Your task to perform on an android device: read, delete, or share a saved page in the chrome app Image 0: 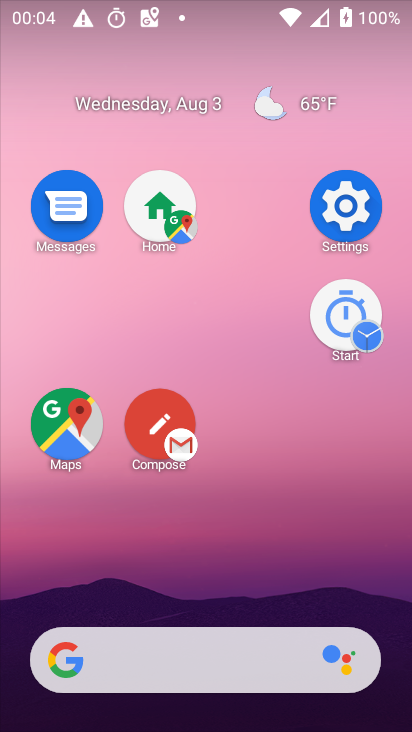
Step 0: click (109, 76)
Your task to perform on an android device: read, delete, or share a saved page in the chrome app Image 1: 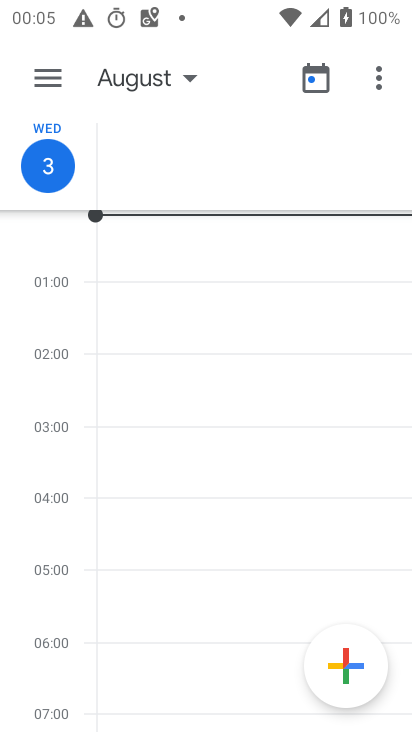
Step 1: press back button
Your task to perform on an android device: read, delete, or share a saved page in the chrome app Image 2: 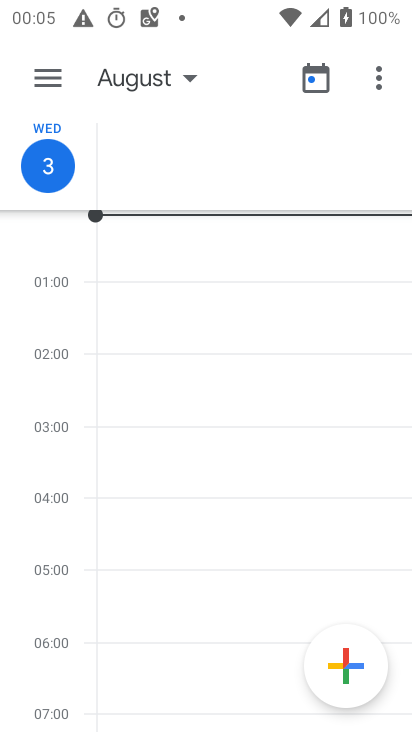
Step 2: press back button
Your task to perform on an android device: read, delete, or share a saved page in the chrome app Image 3: 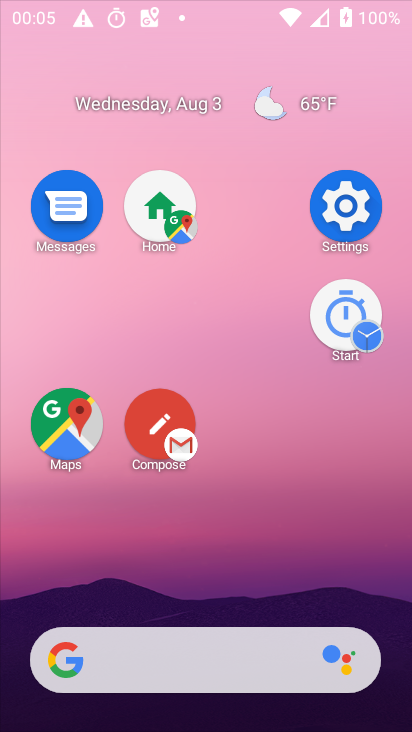
Step 3: press back button
Your task to perform on an android device: read, delete, or share a saved page in the chrome app Image 4: 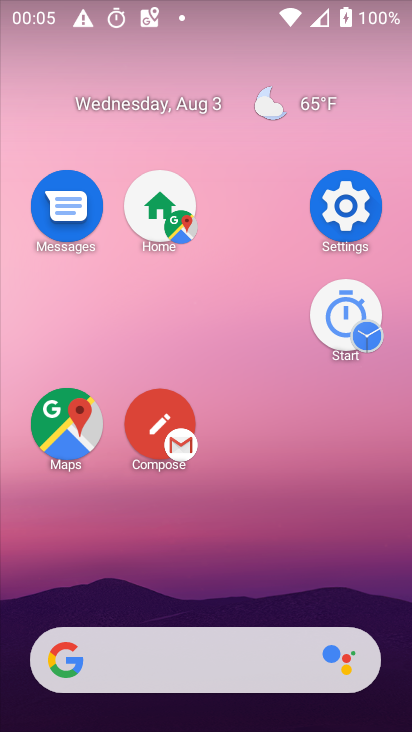
Step 4: press home button
Your task to perform on an android device: read, delete, or share a saved page in the chrome app Image 5: 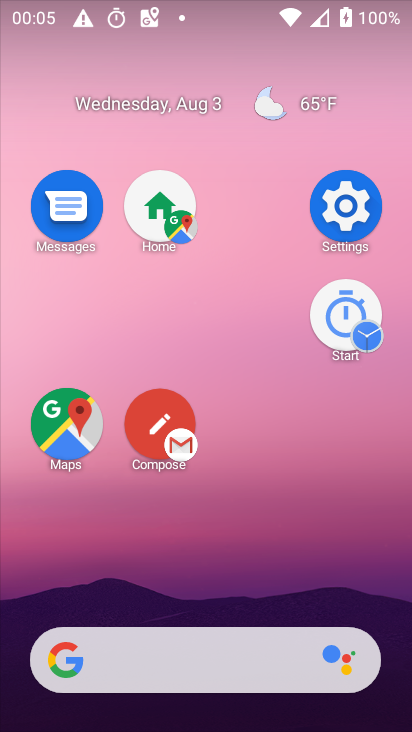
Step 5: press home button
Your task to perform on an android device: read, delete, or share a saved page in the chrome app Image 6: 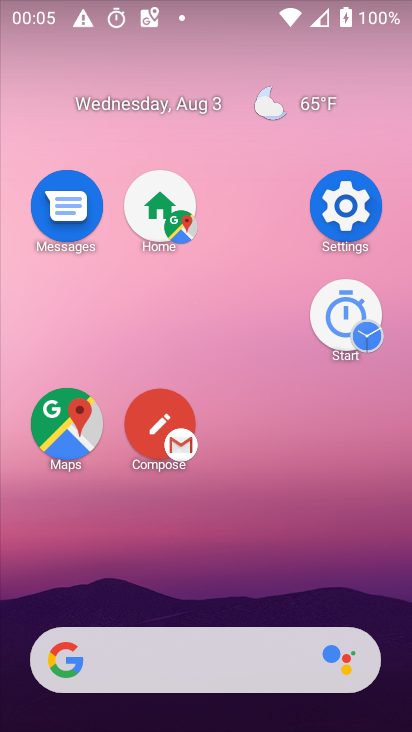
Step 6: drag from (245, 656) to (218, 129)
Your task to perform on an android device: read, delete, or share a saved page in the chrome app Image 7: 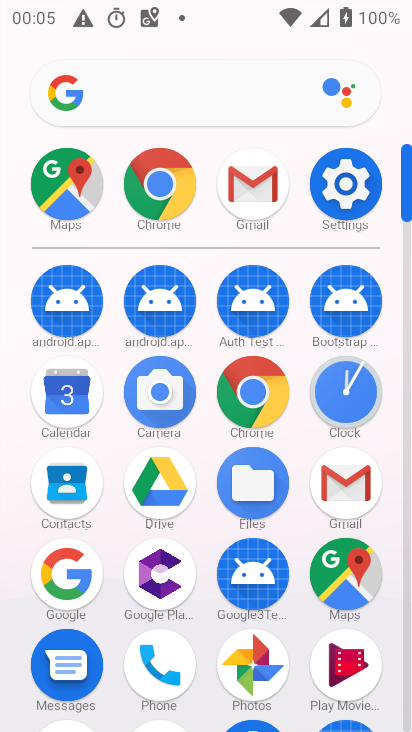
Step 7: drag from (253, 523) to (225, 181)
Your task to perform on an android device: read, delete, or share a saved page in the chrome app Image 8: 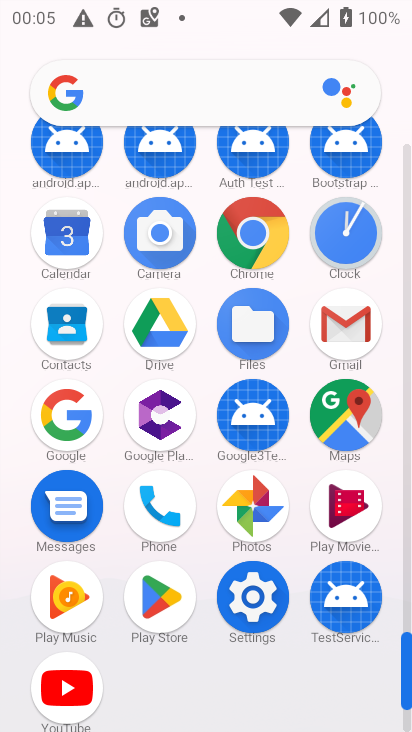
Step 8: click (247, 227)
Your task to perform on an android device: read, delete, or share a saved page in the chrome app Image 9: 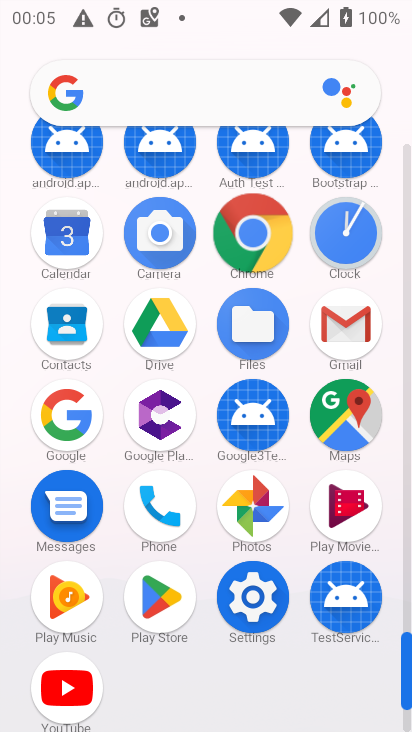
Step 9: click (251, 233)
Your task to perform on an android device: read, delete, or share a saved page in the chrome app Image 10: 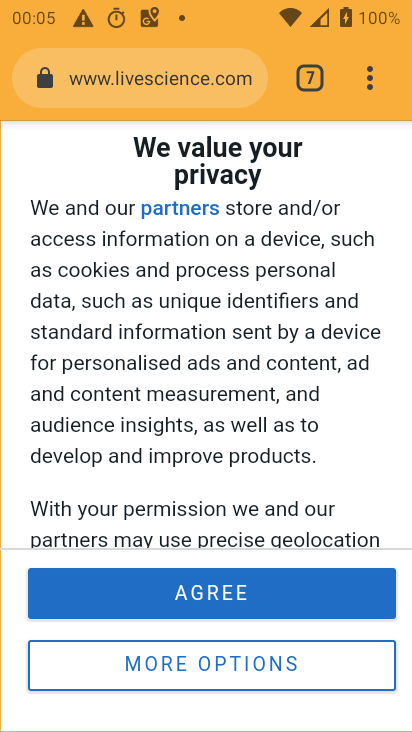
Step 10: drag from (364, 77) to (64, 498)
Your task to perform on an android device: read, delete, or share a saved page in the chrome app Image 11: 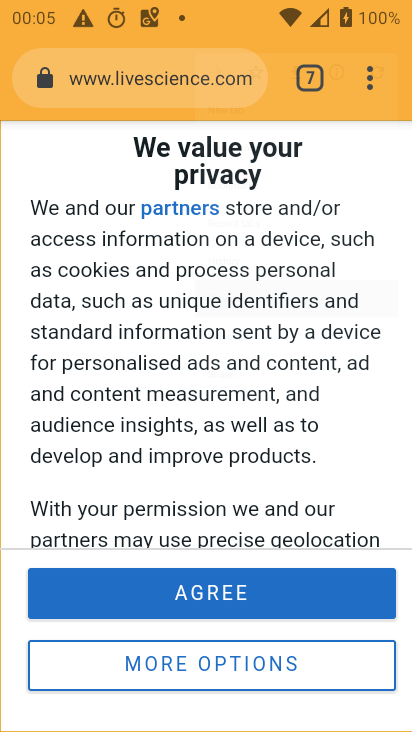
Step 11: click (72, 501)
Your task to perform on an android device: read, delete, or share a saved page in the chrome app Image 12: 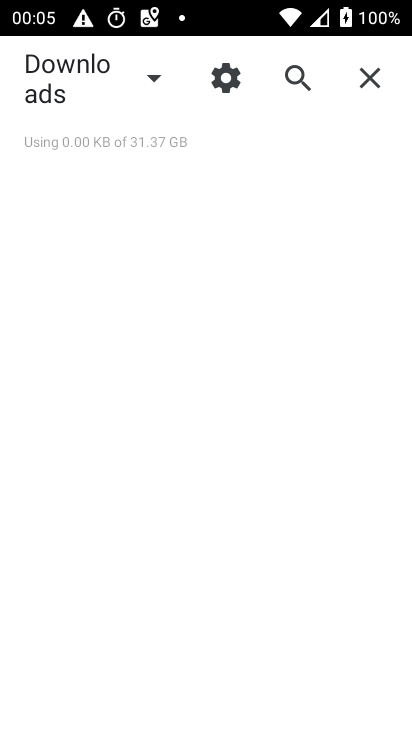
Step 12: click (151, 76)
Your task to perform on an android device: read, delete, or share a saved page in the chrome app Image 13: 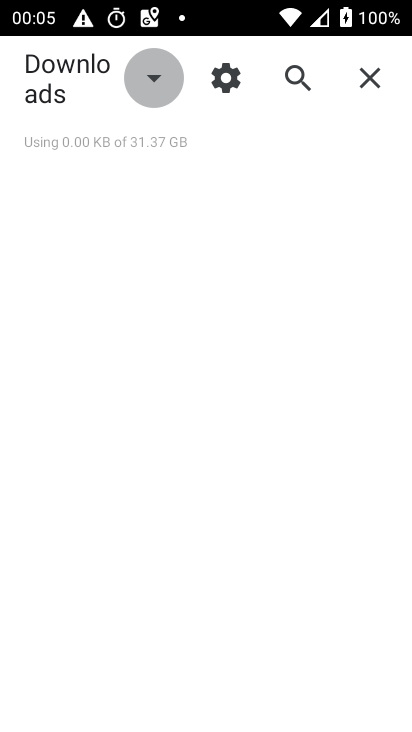
Step 13: click (151, 76)
Your task to perform on an android device: read, delete, or share a saved page in the chrome app Image 14: 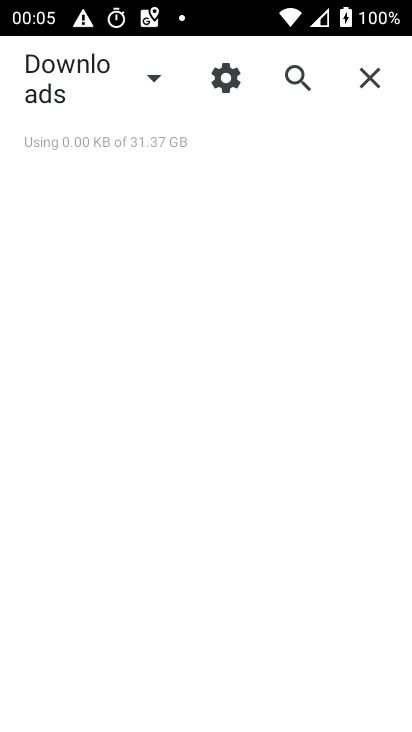
Step 14: click (154, 75)
Your task to perform on an android device: read, delete, or share a saved page in the chrome app Image 15: 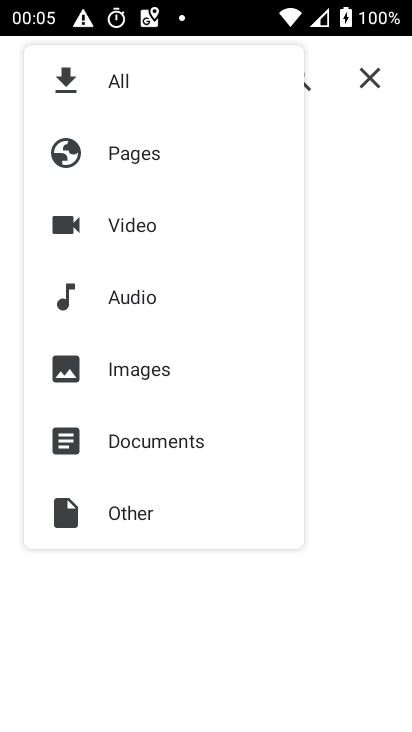
Step 15: task complete